Your task to perform on an android device: Go to Yahoo.com Image 0: 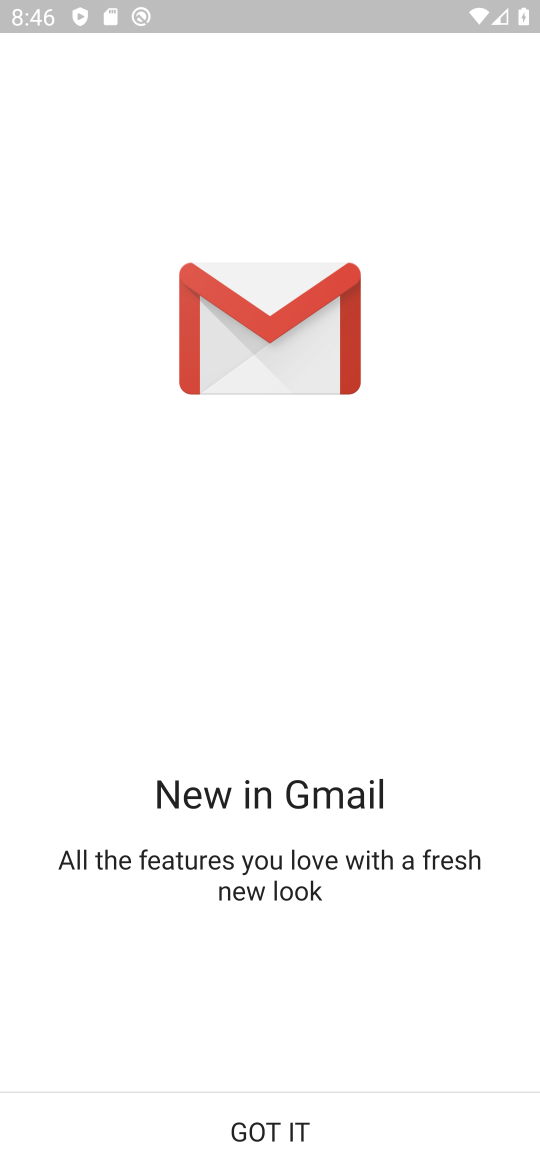
Step 0: press home button
Your task to perform on an android device: Go to Yahoo.com Image 1: 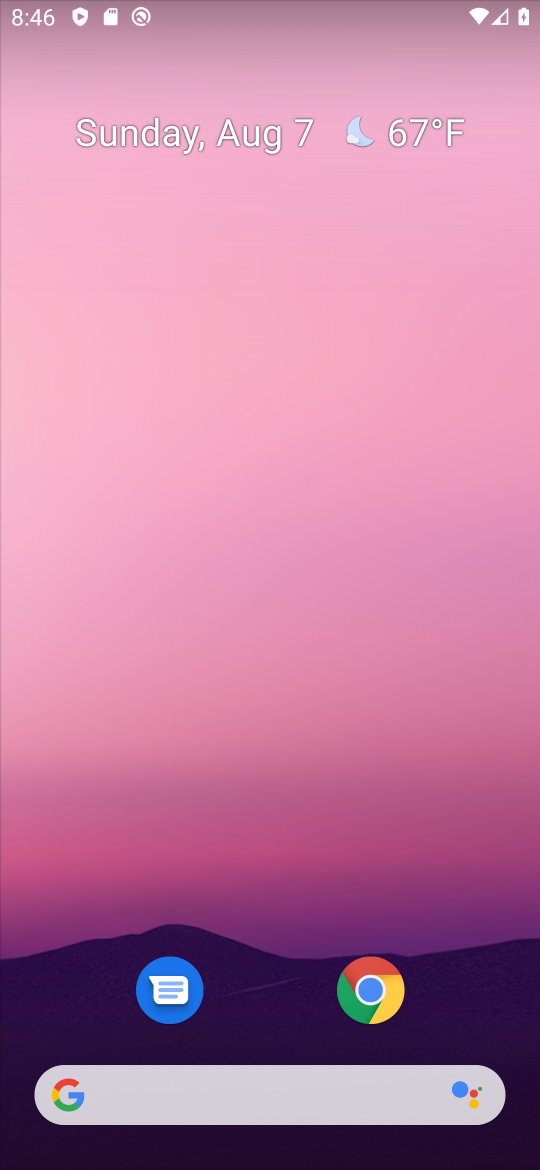
Step 1: click (343, 1110)
Your task to perform on an android device: Go to Yahoo.com Image 2: 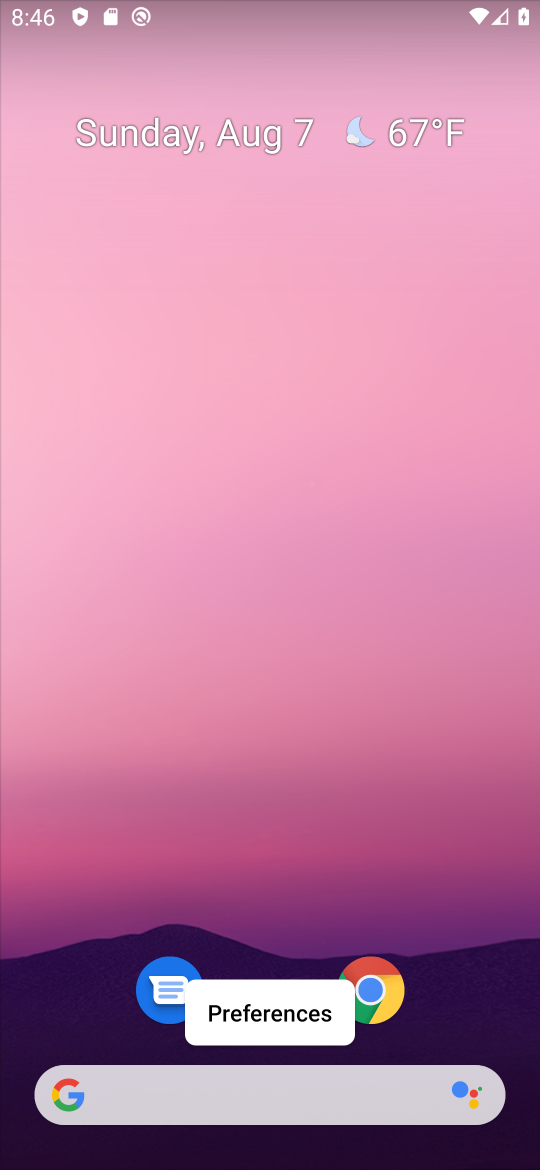
Step 2: click (343, 1110)
Your task to perform on an android device: Go to Yahoo.com Image 3: 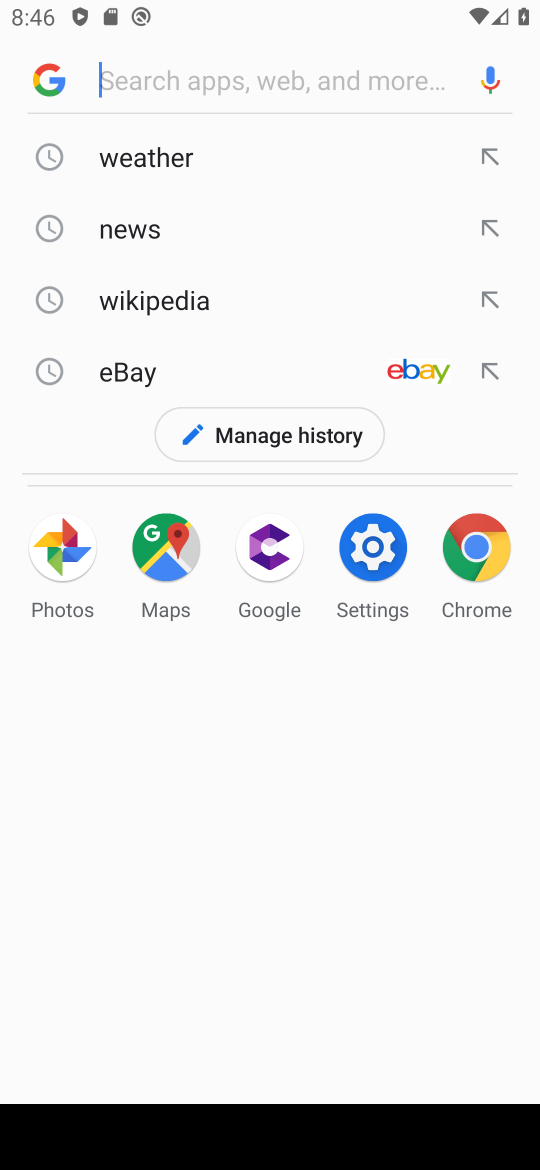
Step 3: type "yahoo.com"
Your task to perform on an android device: Go to Yahoo.com Image 4: 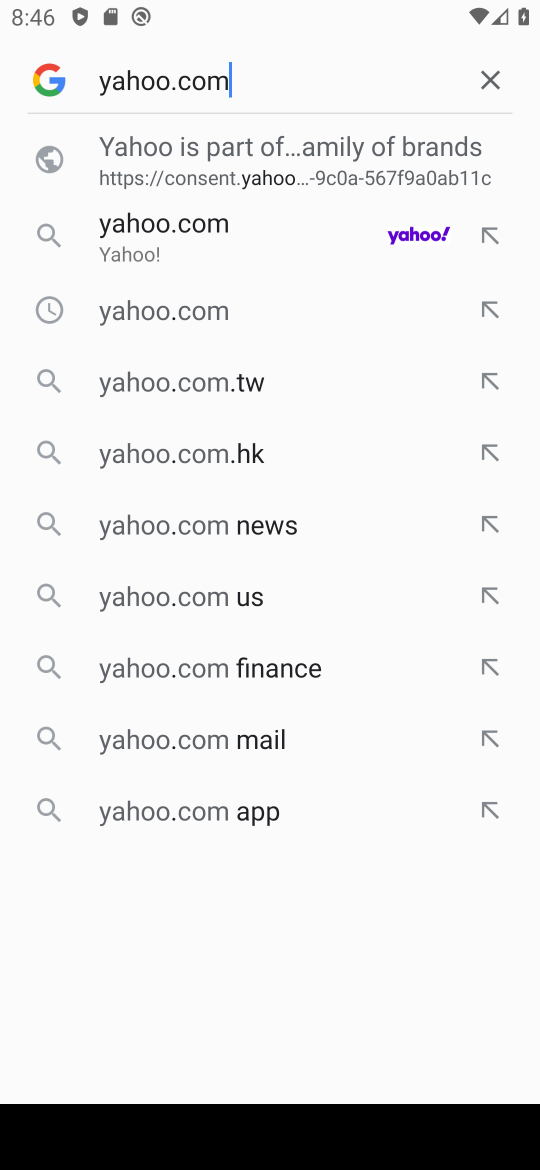
Step 4: click (297, 239)
Your task to perform on an android device: Go to Yahoo.com Image 5: 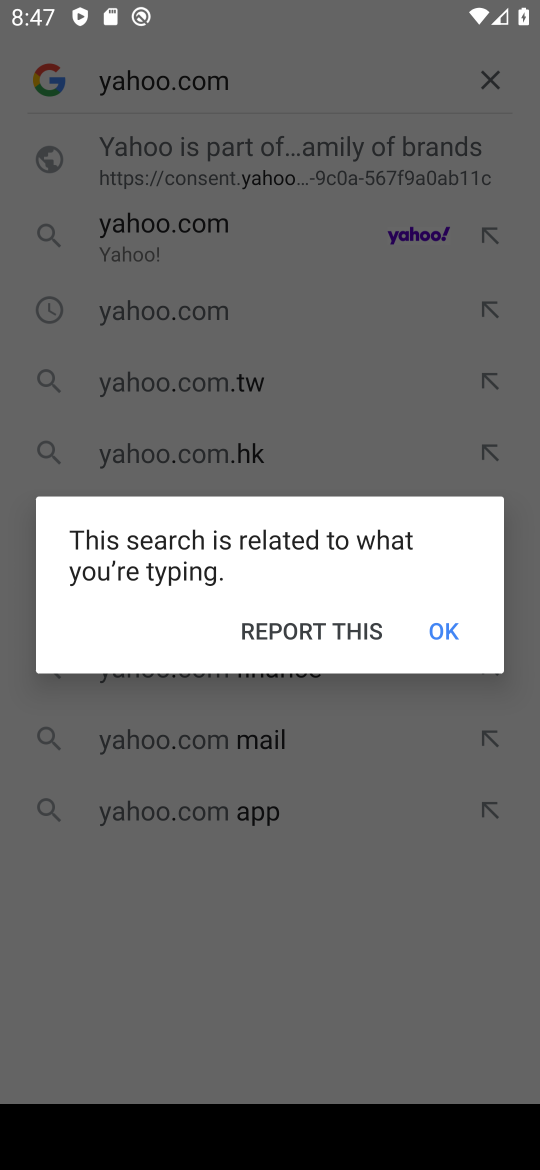
Step 5: click (359, 970)
Your task to perform on an android device: Go to Yahoo.com Image 6: 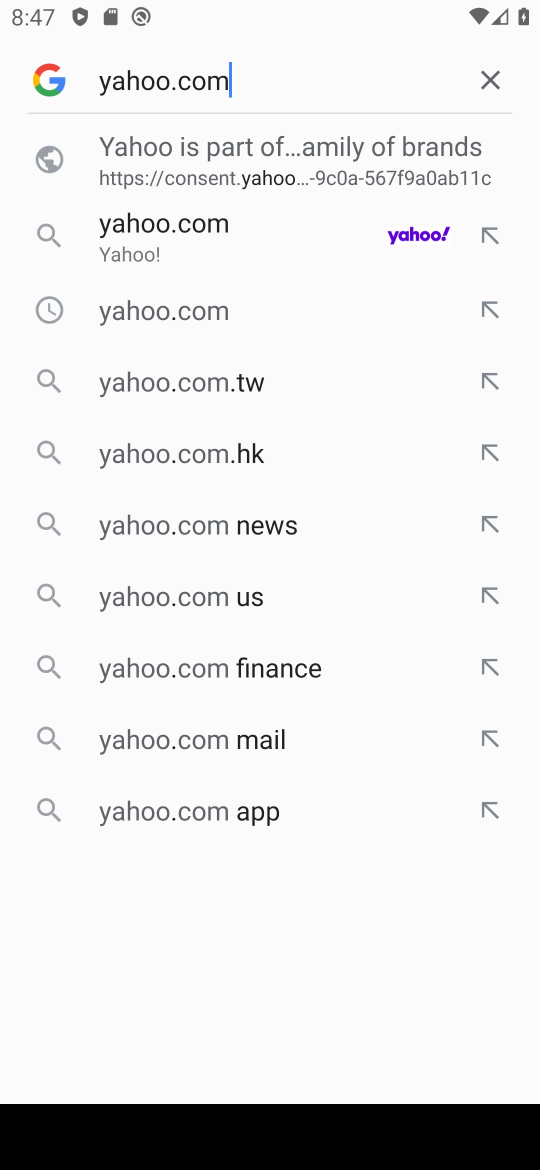
Step 6: click (334, 233)
Your task to perform on an android device: Go to Yahoo.com Image 7: 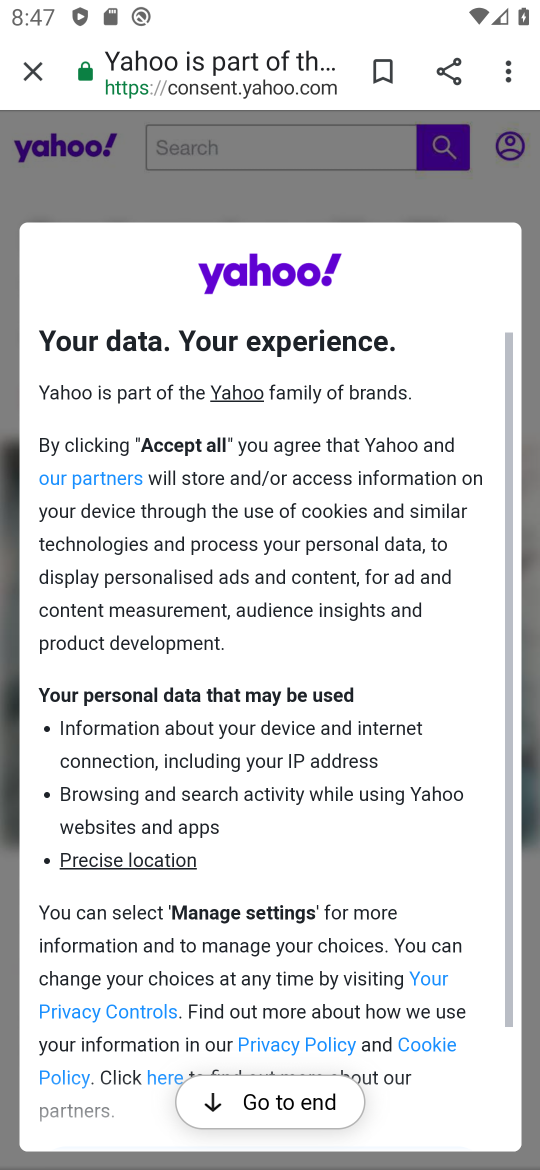
Step 7: click (282, 1101)
Your task to perform on an android device: Go to Yahoo.com Image 8: 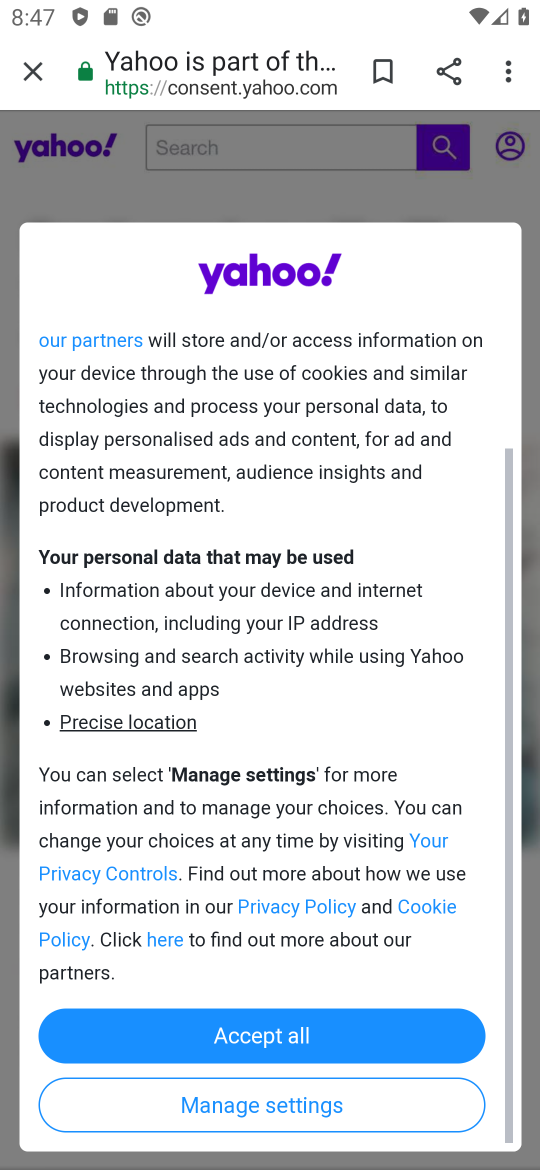
Step 8: click (296, 1034)
Your task to perform on an android device: Go to Yahoo.com Image 9: 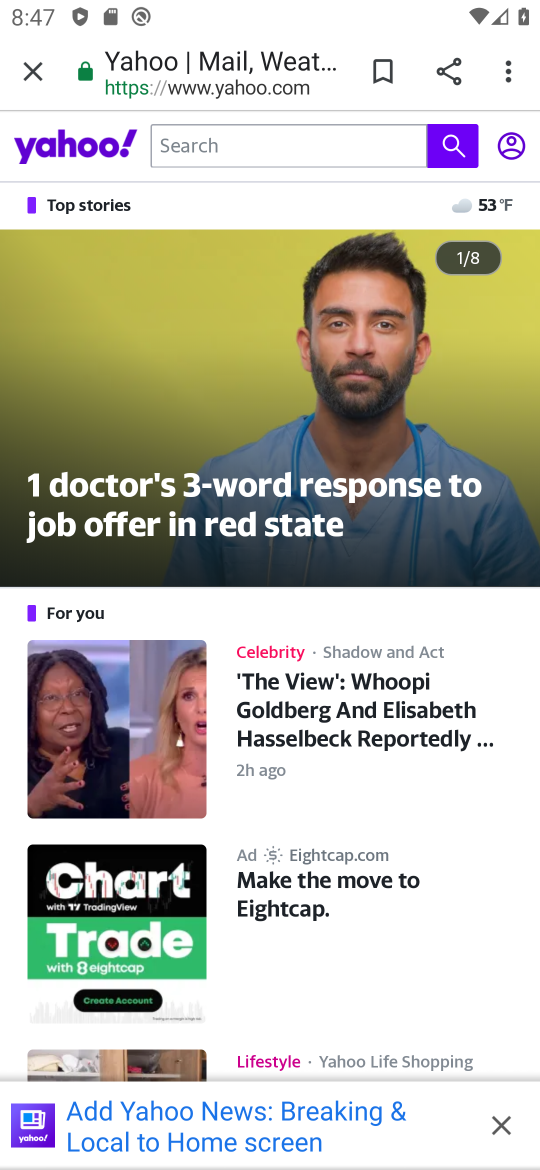
Step 9: task complete